Your task to perform on an android device: turn on airplane mode Image 0: 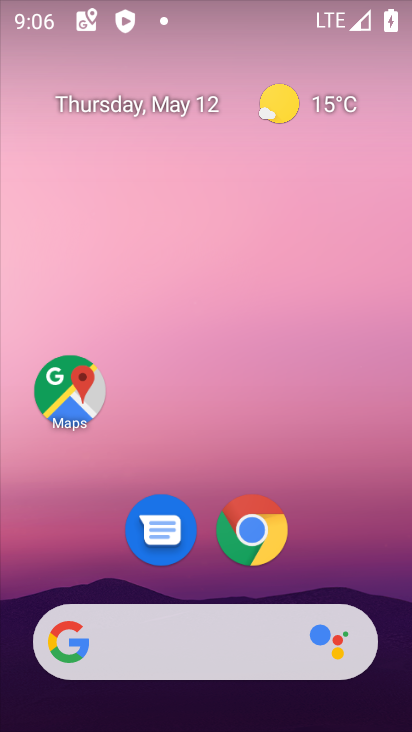
Step 0: drag from (252, 714) to (155, 57)
Your task to perform on an android device: turn on airplane mode Image 1: 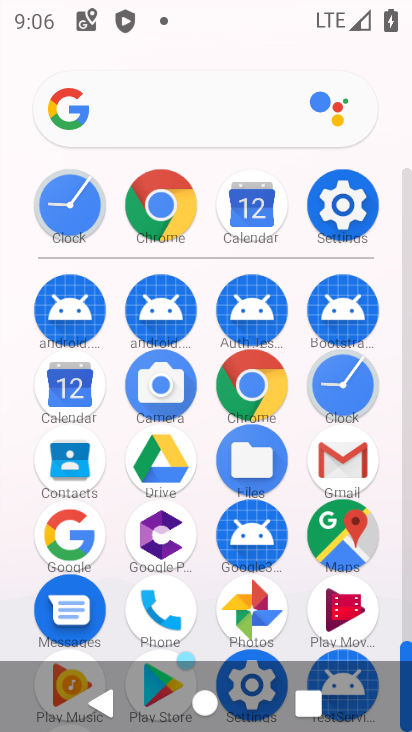
Step 1: click (345, 206)
Your task to perform on an android device: turn on airplane mode Image 2: 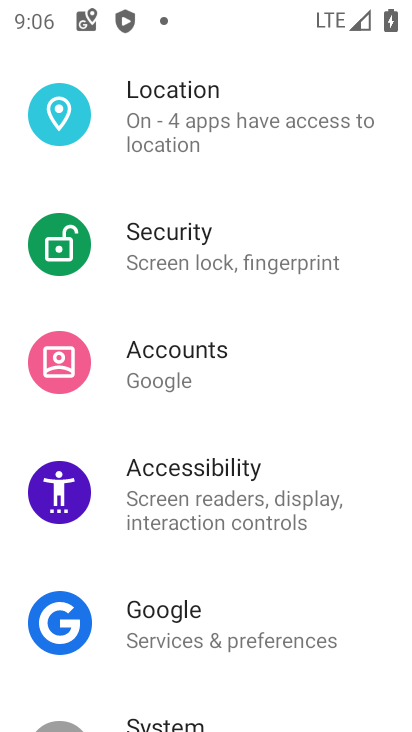
Step 2: drag from (282, 187) to (281, 579)
Your task to perform on an android device: turn on airplane mode Image 3: 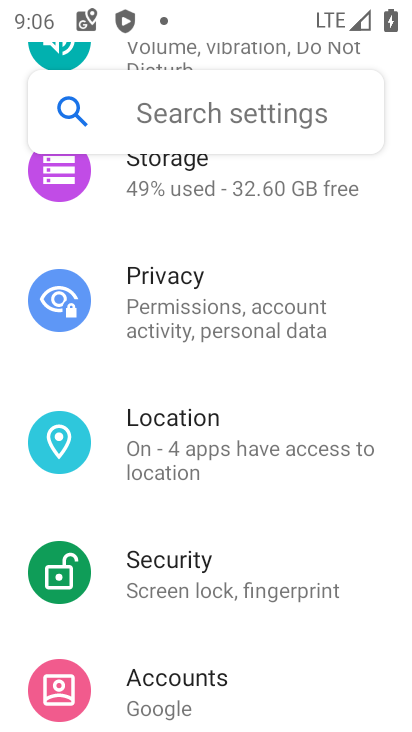
Step 3: drag from (281, 249) to (304, 537)
Your task to perform on an android device: turn on airplane mode Image 4: 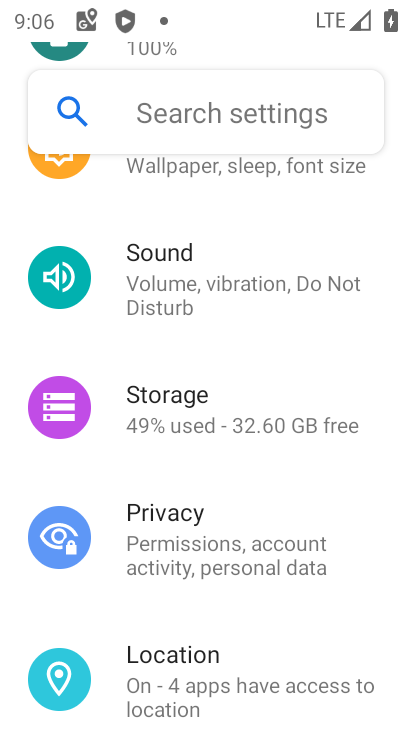
Step 4: drag from (322, 179) to (332, 644)
Your task to perform on an android device: turn on airplane mode Image 5: 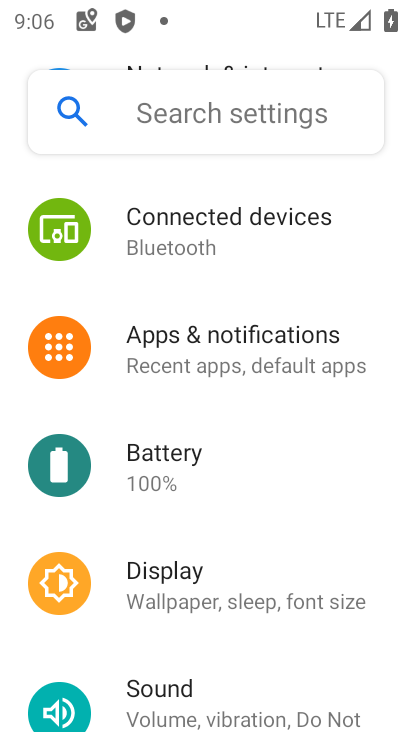
Step 5: drag from (277, 220) to (314, 697)
Your task to perform on an android device: turn on airplane mode Image 6: 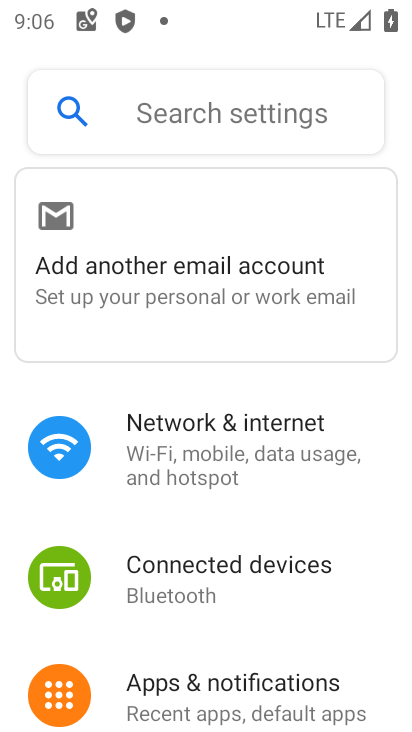
Step 6: click (270, 447)
Your task to perform on an android device: turn on airplane mode Image 7: 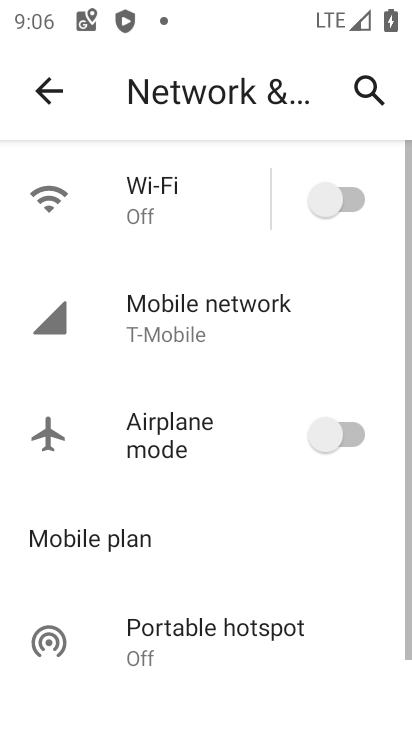
Step 7: click (343, 442)
Your task to perform on an android device: turn on airplane mode Image 8: 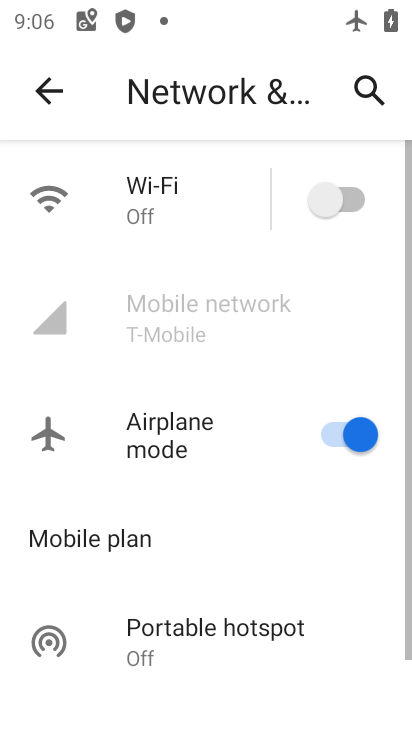
Step 8: task complete